Your task to perform on an android device: Go to Google maps Image 0: 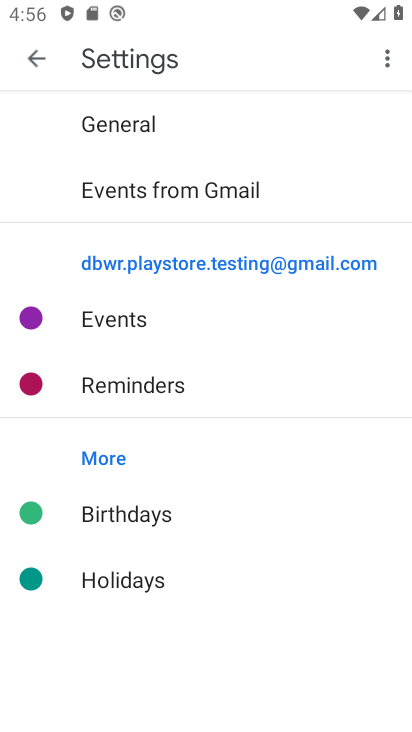
Step 0: press back button
Your task to perform on an android device: Go to Google maps Image 1: 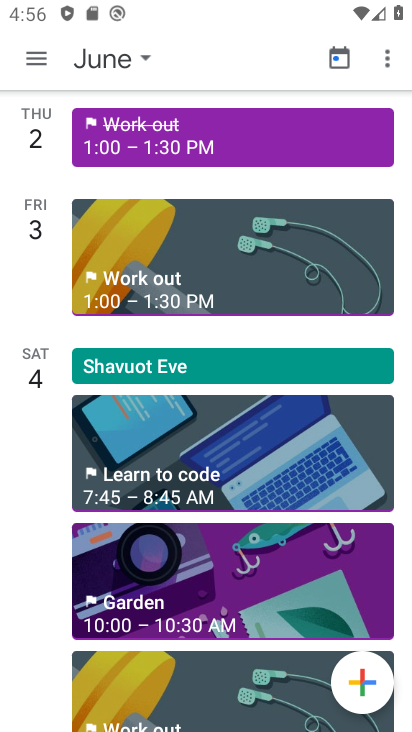
Step 1: press back button
Your task to perform on an android device: Go to Google maps Image 2: 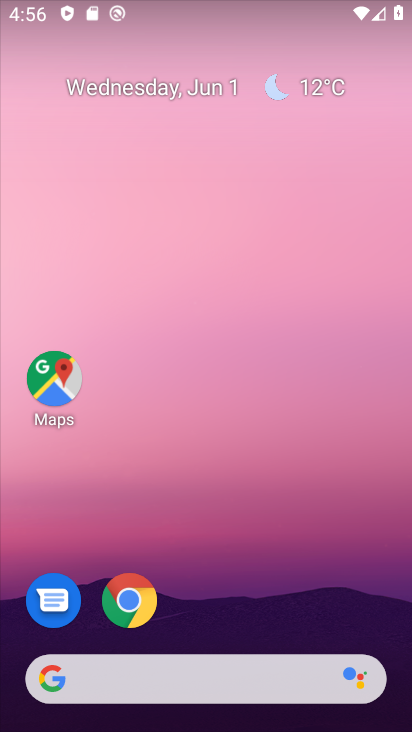
Step 2: click (52, 378)
Your task to perform on an android device: Go to Google maps Image 3: 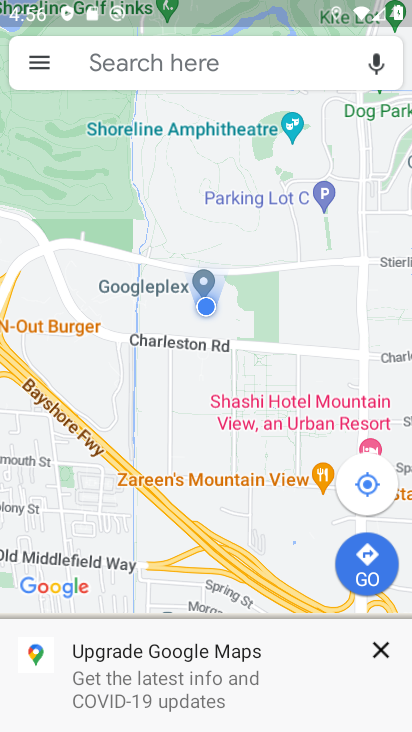
Step 3: task complete